Your task to perform on an android device: Open Yahoo.com Image 0: 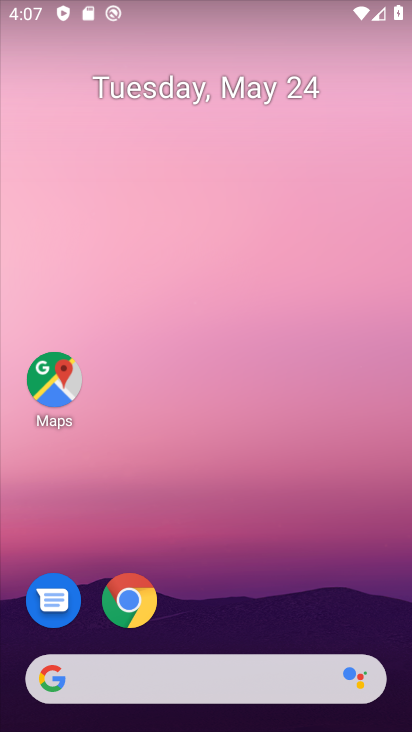
Step 0: click (132, 610)
Your task to perform on an android device: Open Yahoo.com Image 1: 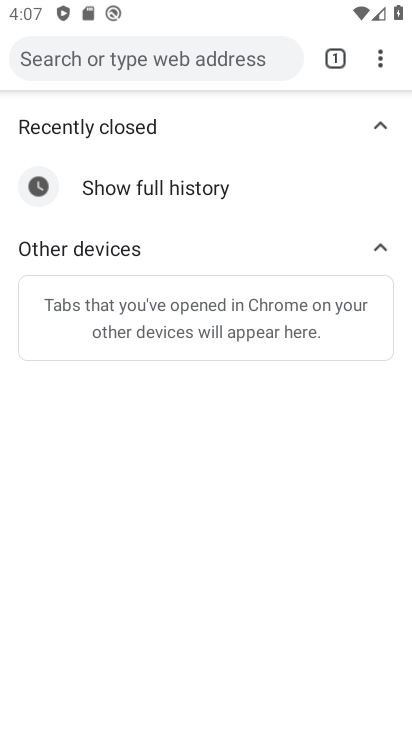
Step 1: click (122, 60)
Your task to perform on an android device: Open Yahoo.com Image 2: 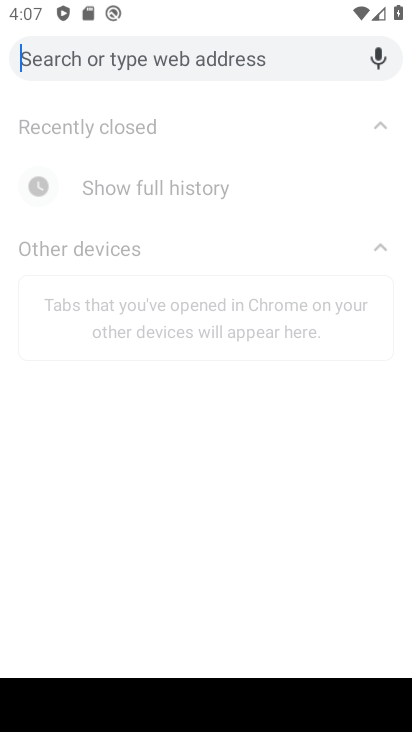
Step 2: type "yahoo.com"
Your task to perform on an android device: Open Yahoo.com Image 3: 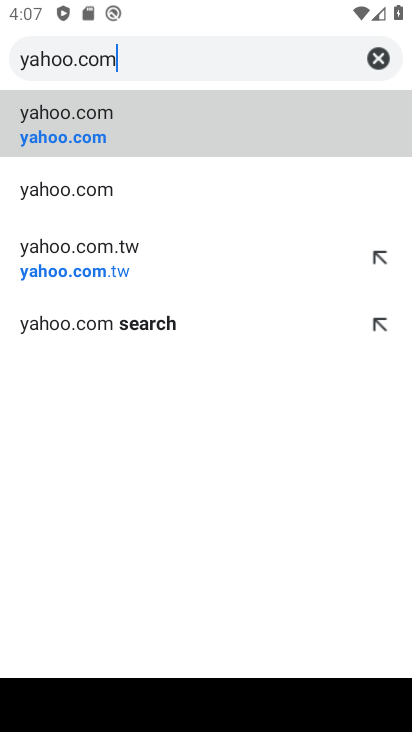
Step 3: click (53, 139)
Your task to perform on an android device: Open Yahoo.com Image 4: 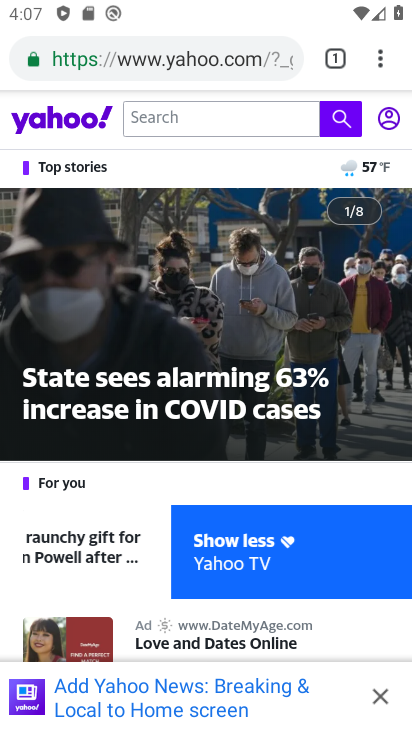
Step 4: task complete